Your task to perform on an android device: Go to location settings Image 0: 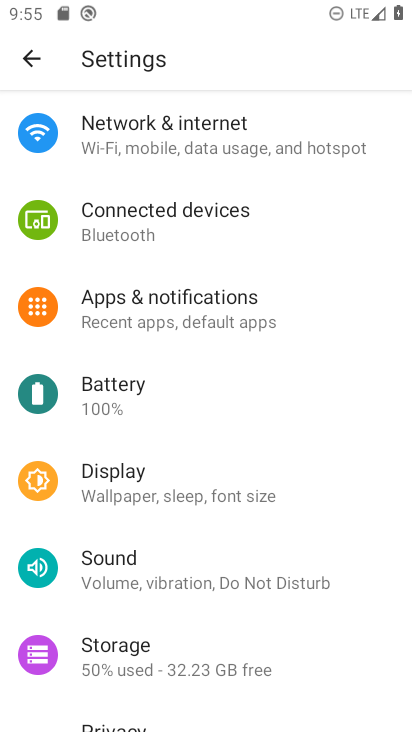
Step 0: drag from (150, 639) to (167, 318)
Your task to perform on an android device: Go to location settings Image 1: 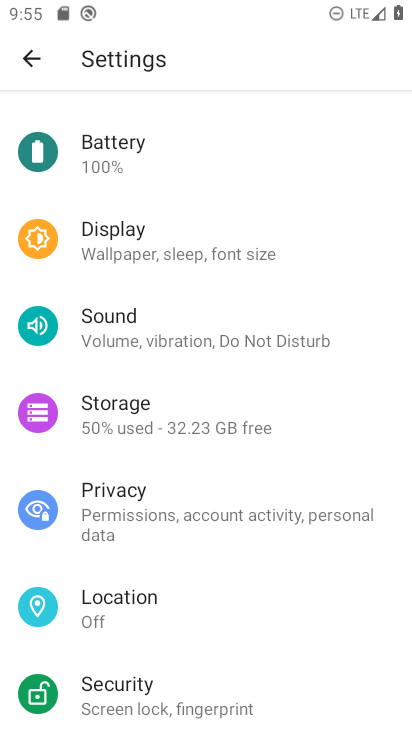
Step 1: click (142, 600)
Your task to perform on an android device: Go to location settings Image 2: 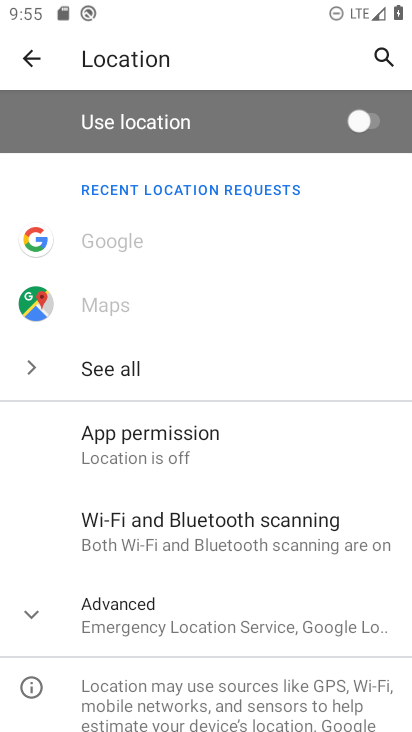
Step 2: task complete